Your task to perform on an android device: Open my contact list Image 0: 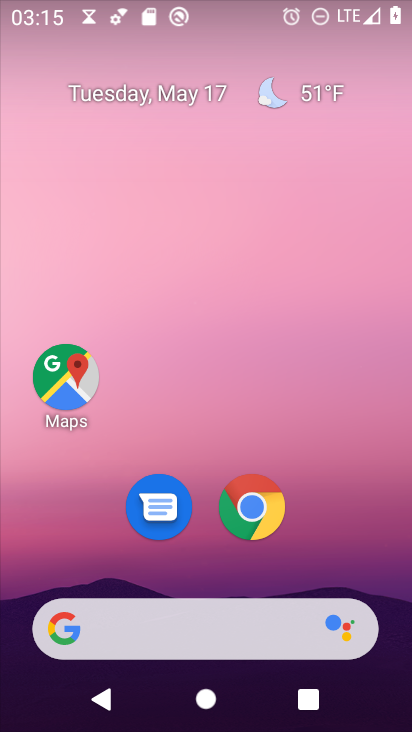
Step 0: drag from (205, 572) to (214, 17)
Your task to perform on an android device: Open my contact list Image 1: 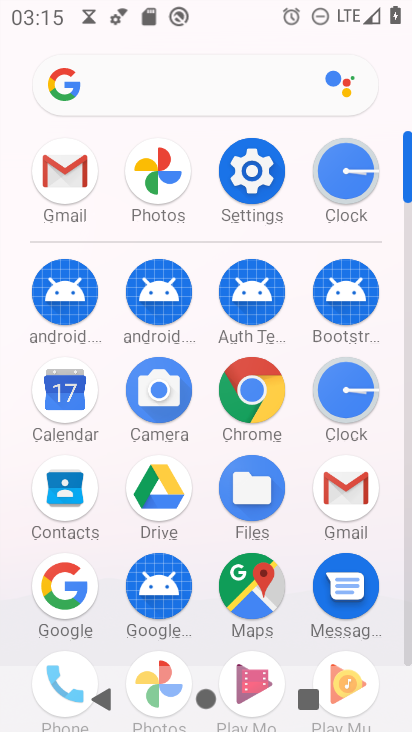
Step 1: click (48, 474)
Your task to perform on an android device: Open my contact list Image 2: 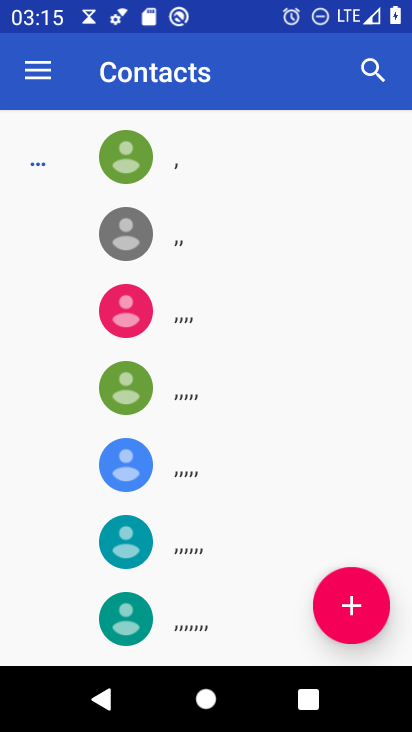
Step 2: task complete